Your task to perform on an android device: add a contact Image 0: 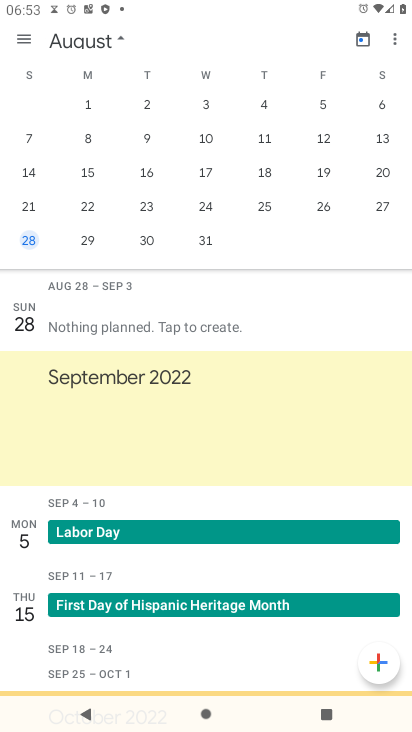
Step 0: press home button
Your task to perform on an android device: add a contact Image 1: 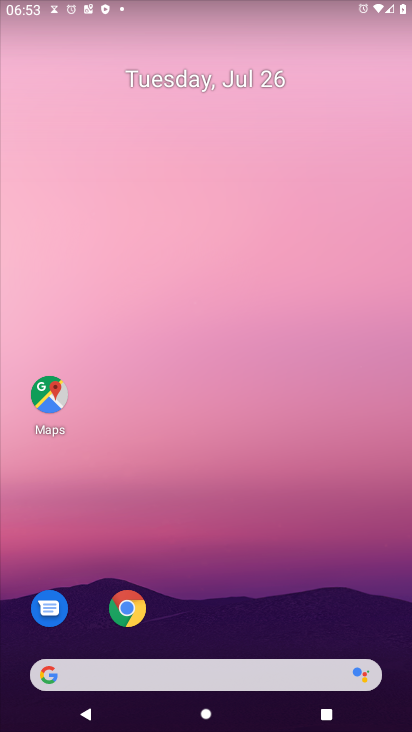
Step 1: drag from (221, 630) to (249, 129)
Your task to perform on an android device: add a contact Image 2: 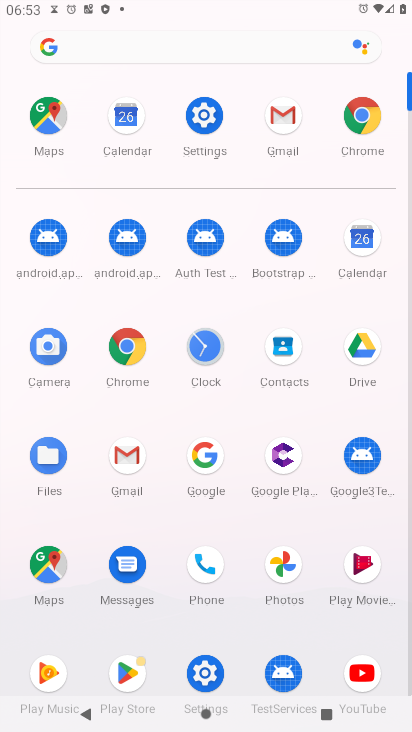
Step 2: click (277, 343)
Your task to perform on an android device: add a contact Image 3: 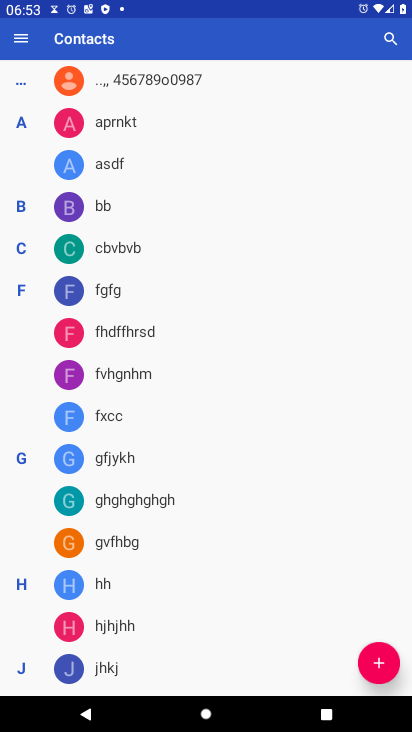
Step 3: click (378, 660)
Your task to perform on an android device: add a contact Image 4: 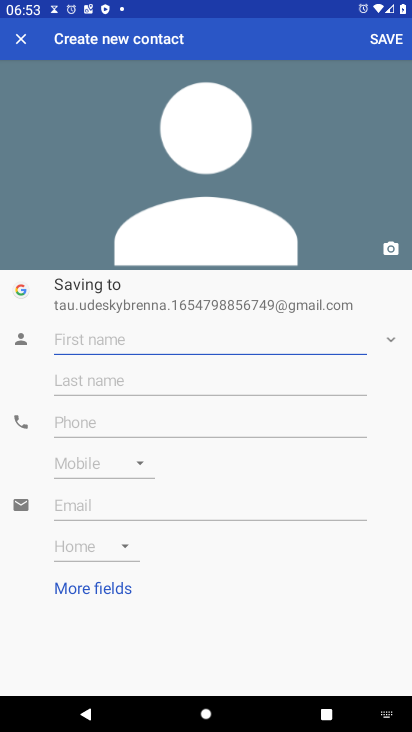
Step 4: type "jjbjbjb"
Your task to perform on an android device: add a contact Image 5: 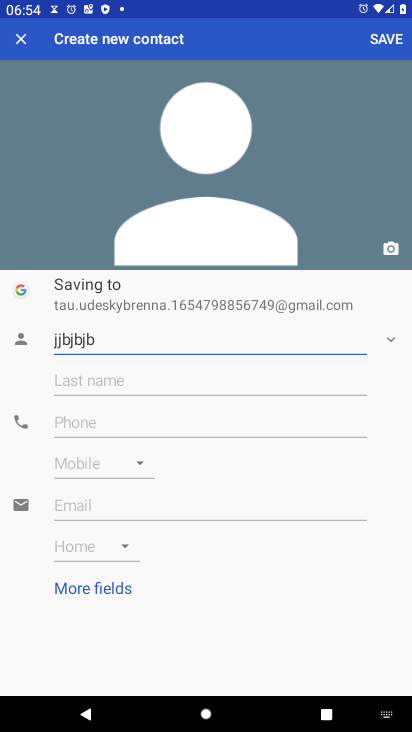
Step 5: click (215, 426)
Your task to perform on an android device: add a contact Image 6: 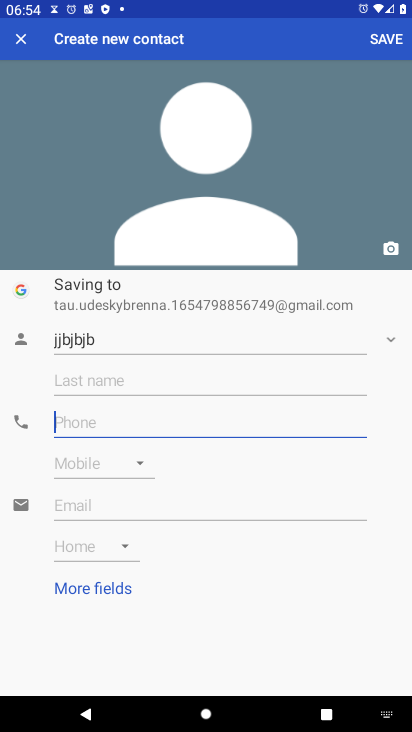
Step 6: type "77999"
Your task to perform on an android device: add a contact Image 7: 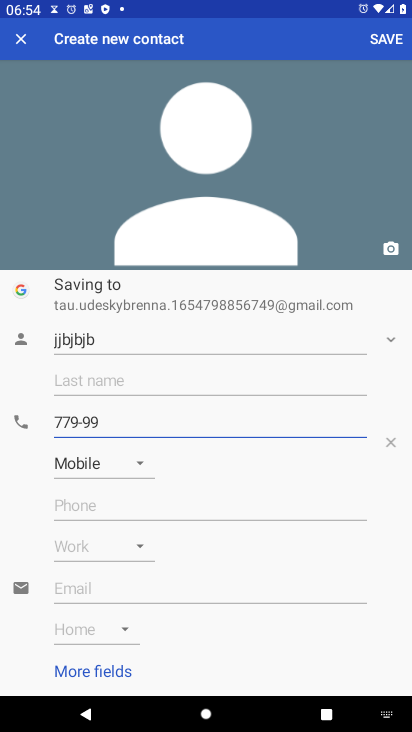
Step 7: click (391, 42)
Your task to perform on an android device: add a contact Image 8: 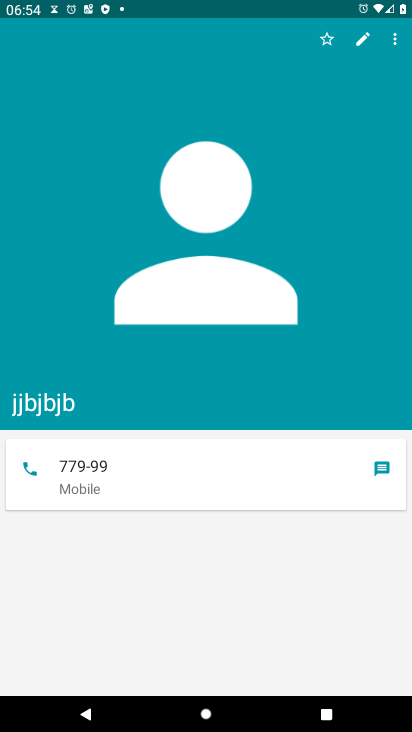
Step 8: task complete